Your task to perform on an android device: Go to location settings Image 0: 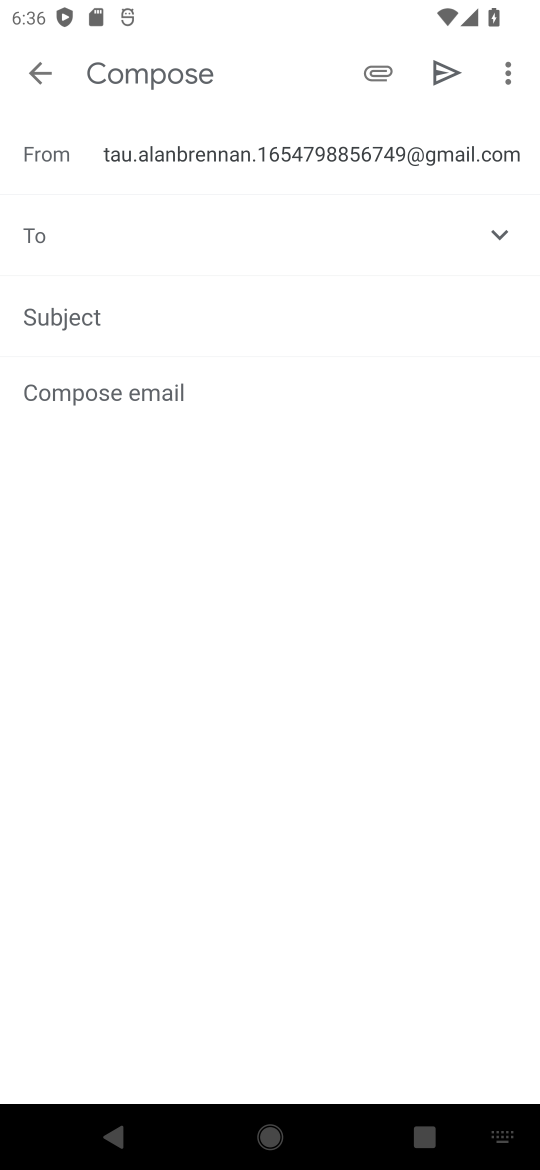
Step 0: press home button
Your task to perform on an android device: Go to location settings Image 1: 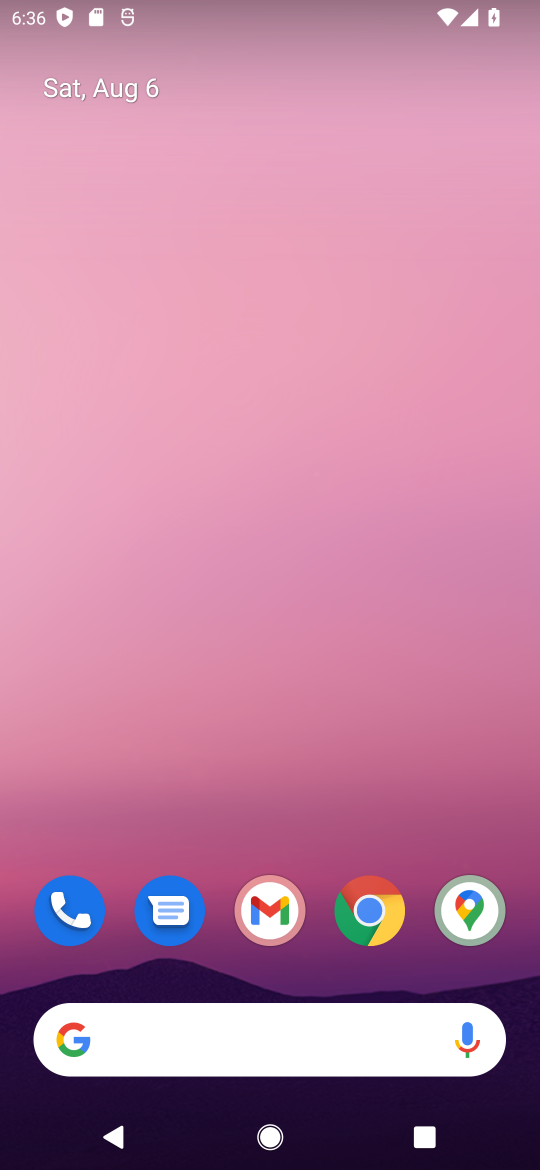
Step 1: drag from (526, 1103) to (495, 313)
Your task to perform on an android device: Go to location settings Image 2: 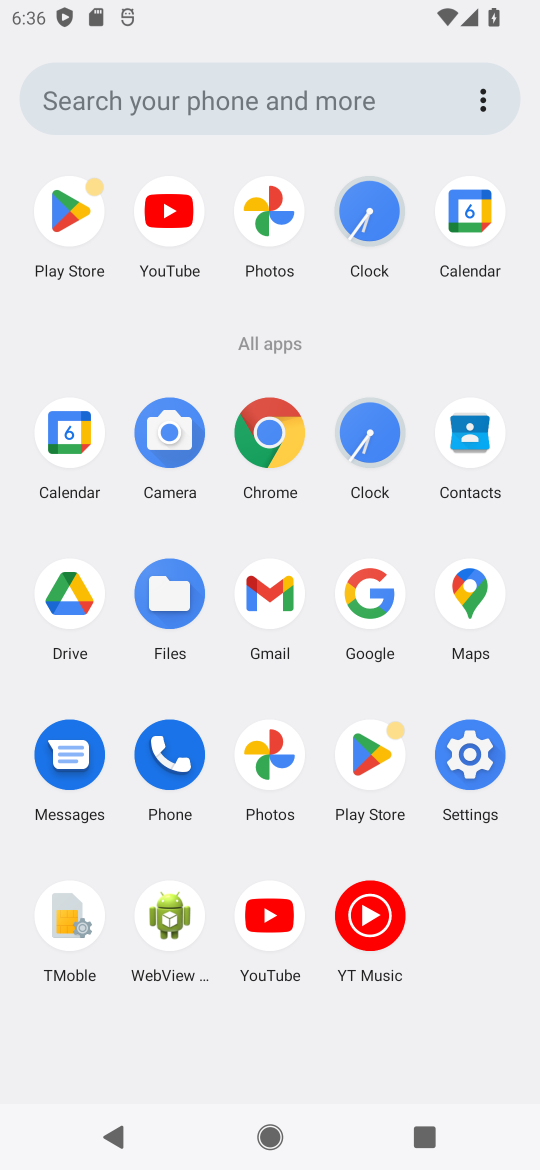
Step 2: click (461, 755)
Your task to perform on an android device: Go to location settings Image 3: 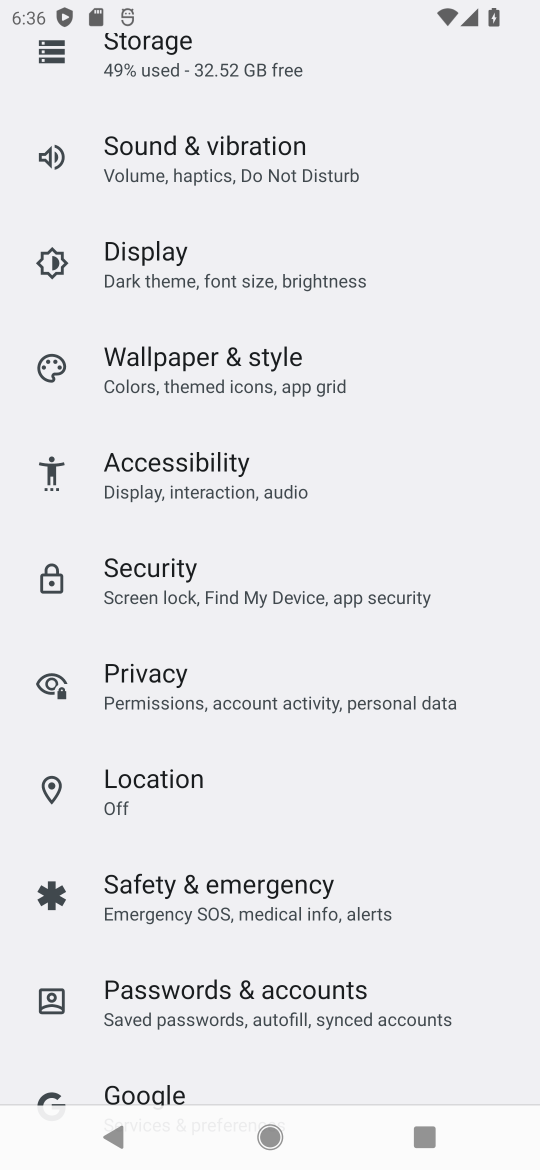
Step 3: click (174, 771)
Your task to perform on an android device: Go to location settings Image 4: 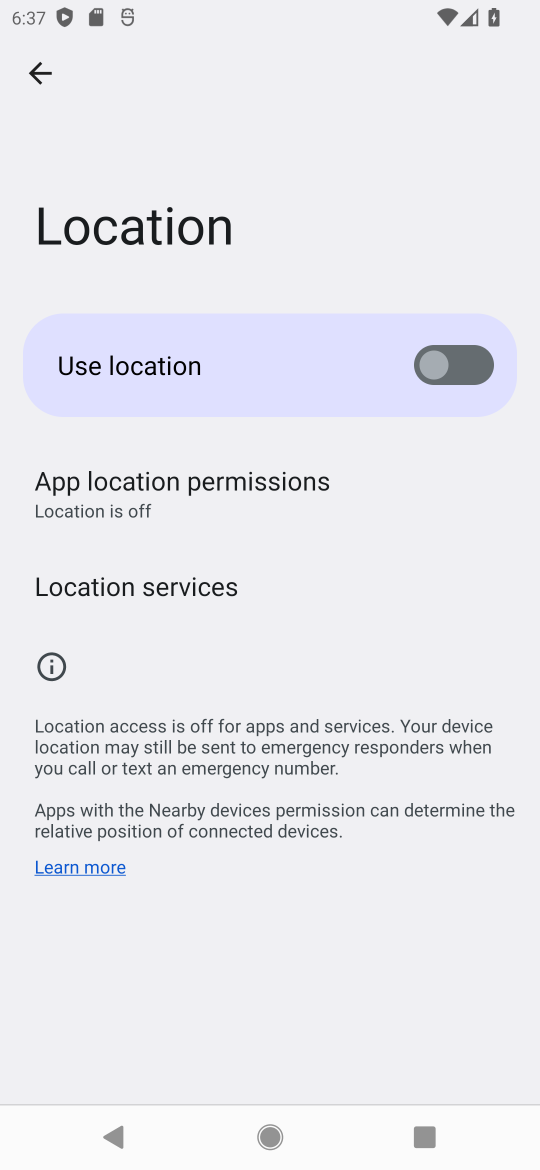
Step 4: task complete